Your task to perform on an android device: Open Yahoo.com Image 0: 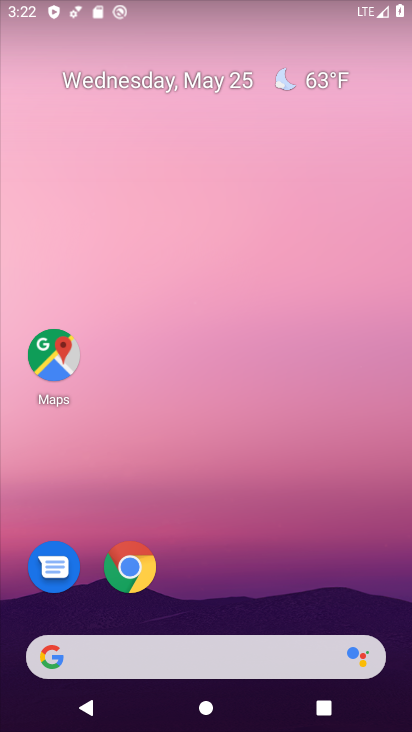
Step 0: drag from (263, 610) to (261, 48)
Your task to perform on an android device: Open Yahoo.com Image 1: 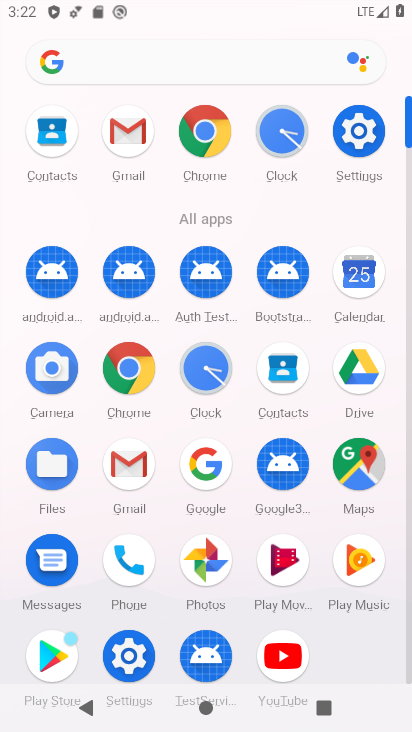
Step 1: click (133, 366)
Your task to perform on an android device: Open Yahoo.com Image 2: 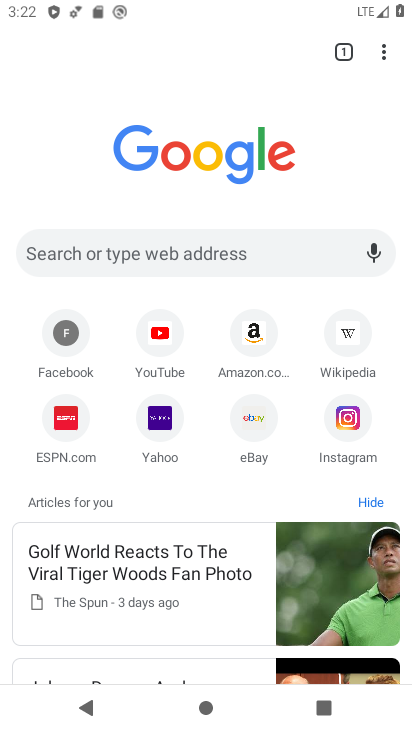
Step 2: click (312, 244)
Your task to perform on an android device: Open Yahoo.com Image 3: 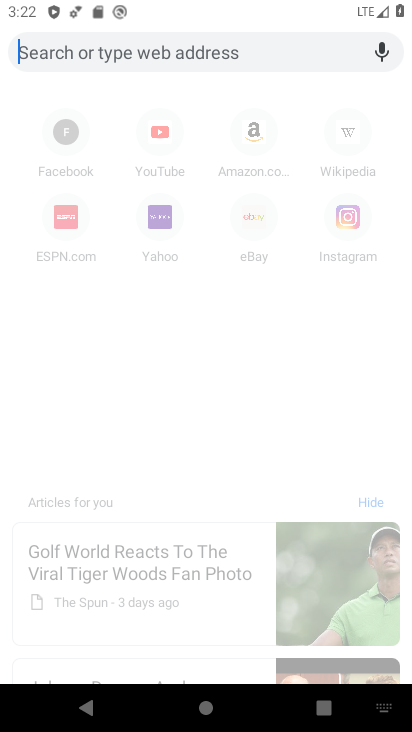
Step 3: type "Yahoo.com"
Your task to perform on an android device: Open Yahoo.com Image 4: 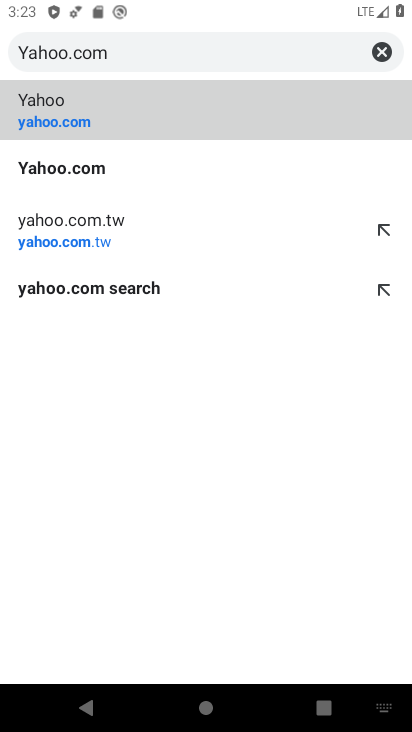
Step 4: click (66, 126)
Your task to perform on an android device: Open Yahoo.com Image 5: 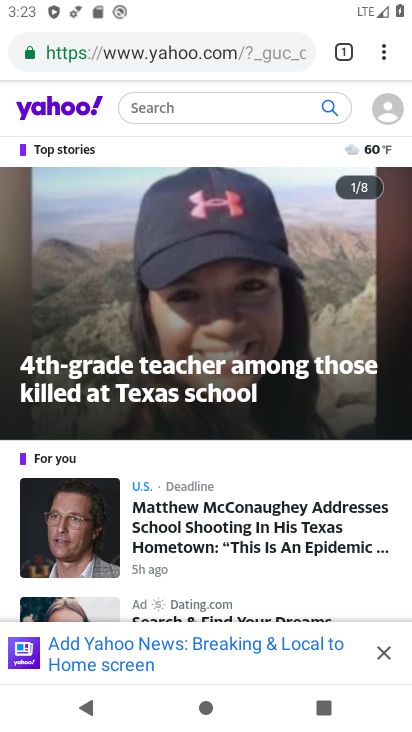
Step 5: task complete